Your task to perform on an android device: check storage Image 0: 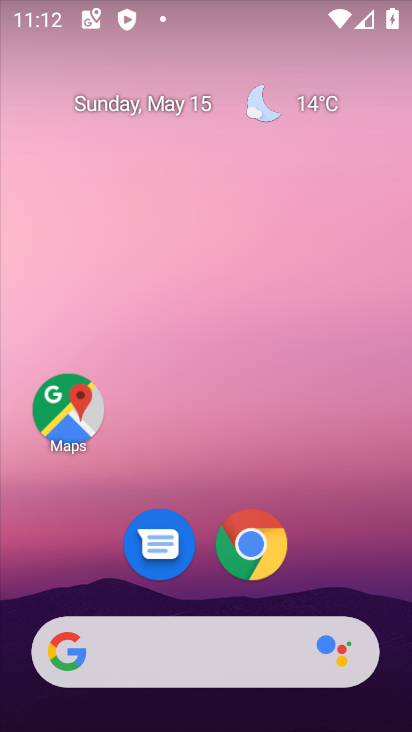
Step 0: drag from (130, 541) to (266, 88)
Your task to perform on an android device: check storage Image 1: 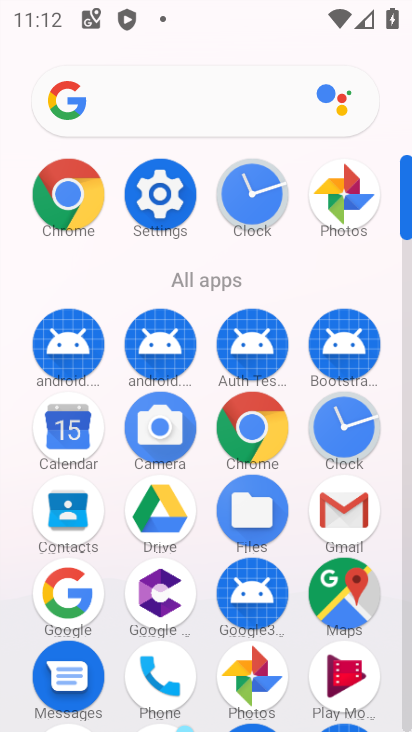
Step 1: drag from (187, 621) to (272, 307)
Your task to perform on an android device: check storage Image 2: 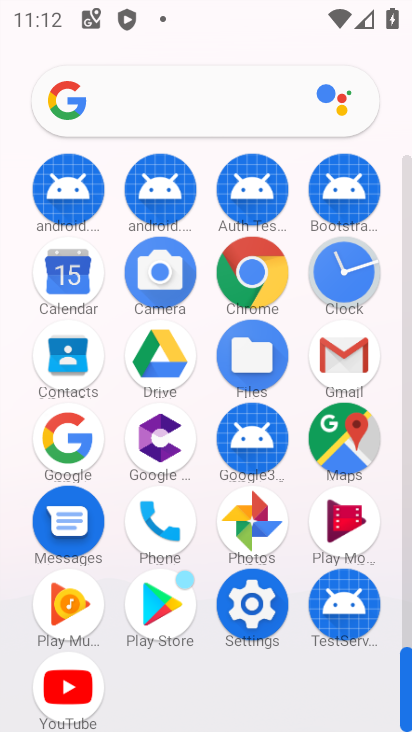
Step 2: click (261, 601)
Your task to perform on an android device: check storage Image 3: 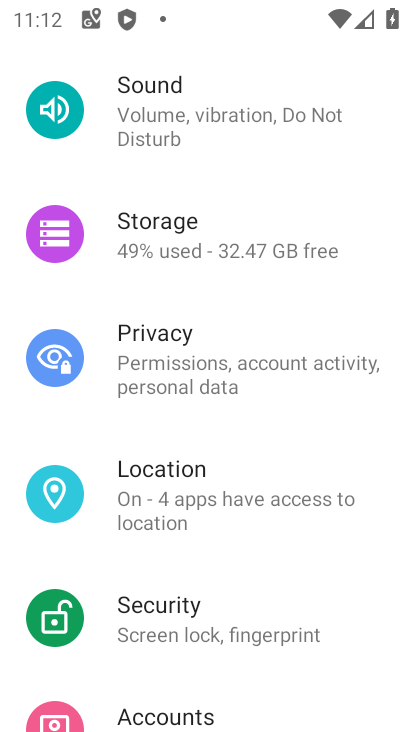
Step 3: click (223, 230)
Your task to perform on an android device: check storage Image 4: 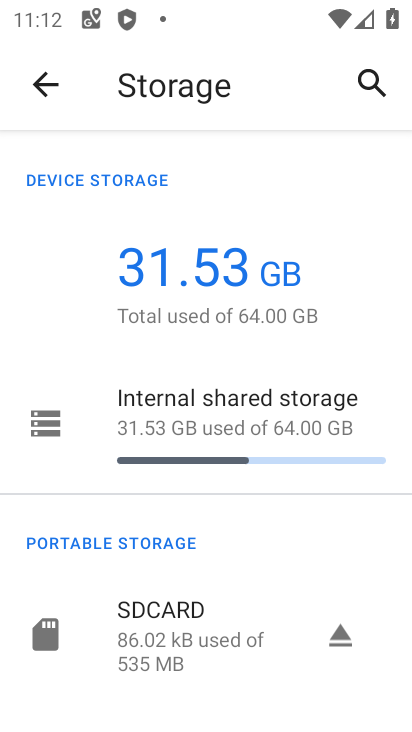
Step 4: task complete